Your task to perform on an android device: Is it going to rain today? Image 0: 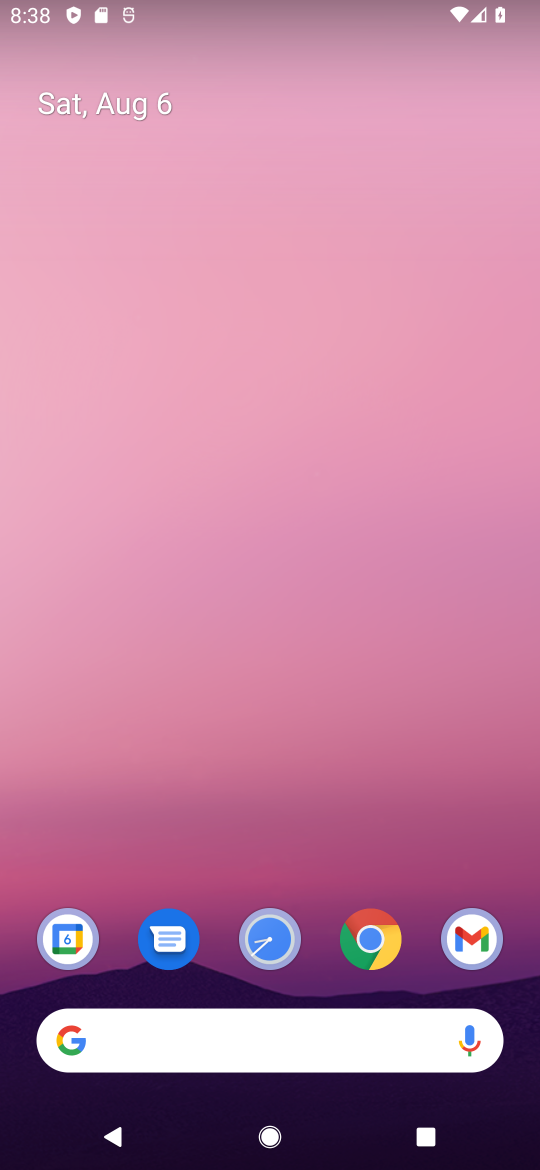
Step 0: drag from (291, 998) to (297, 347)
Your task to perform on an android device: Is it going to rain today? Image 1: 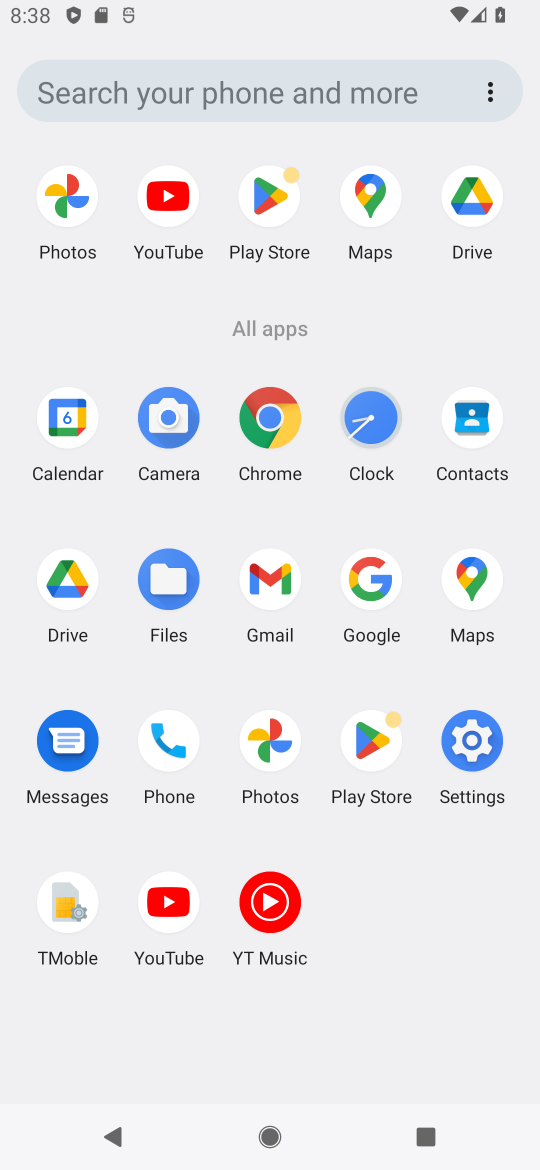
Step 1: click (354, 605)
Your task to perform on an android device: Is it going to rain today? Image 2: 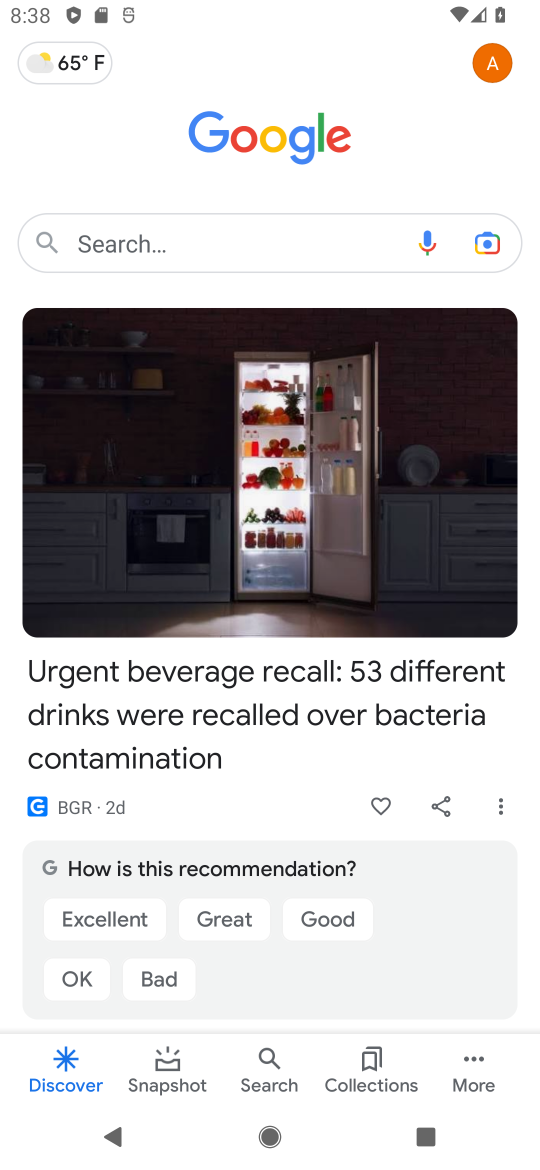
Step 2: click (118, 242)
Your task to perform on an android device: Is it going to rain today? Image 3: 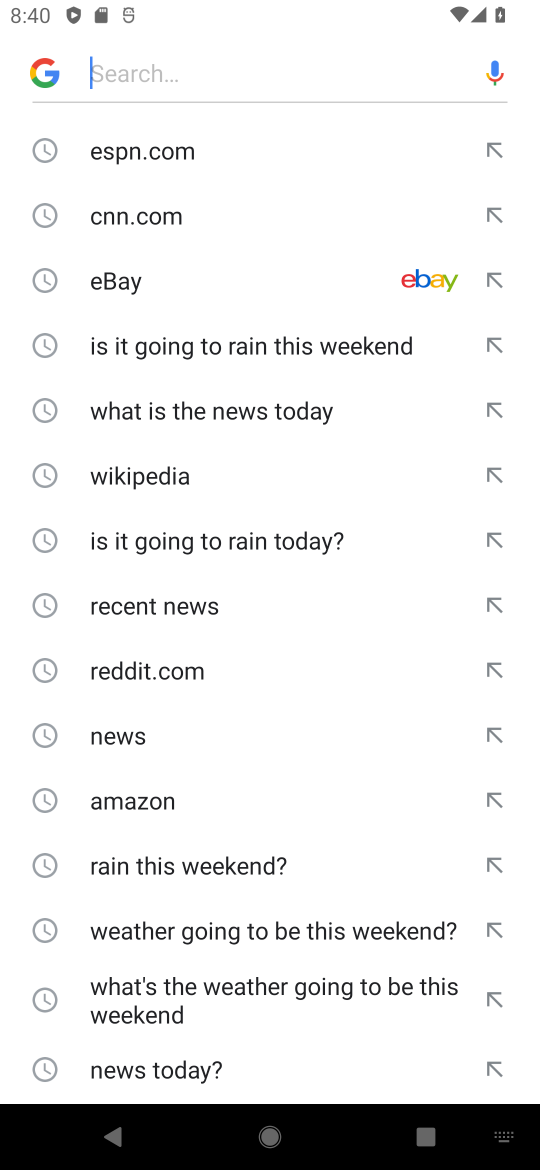
Step 3: click (194, 534)
Your task to perform on an android device: Is it going to rain today? Image 4: 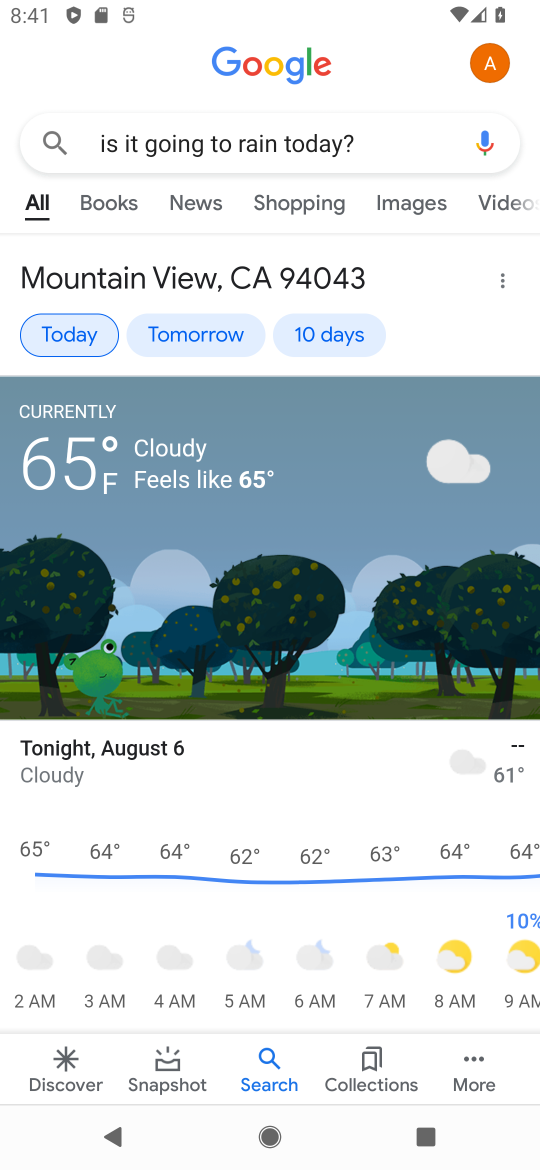
Step 4: click (70, 319)
Your task to perform on an android device: Is it going to rain today? Image 5: 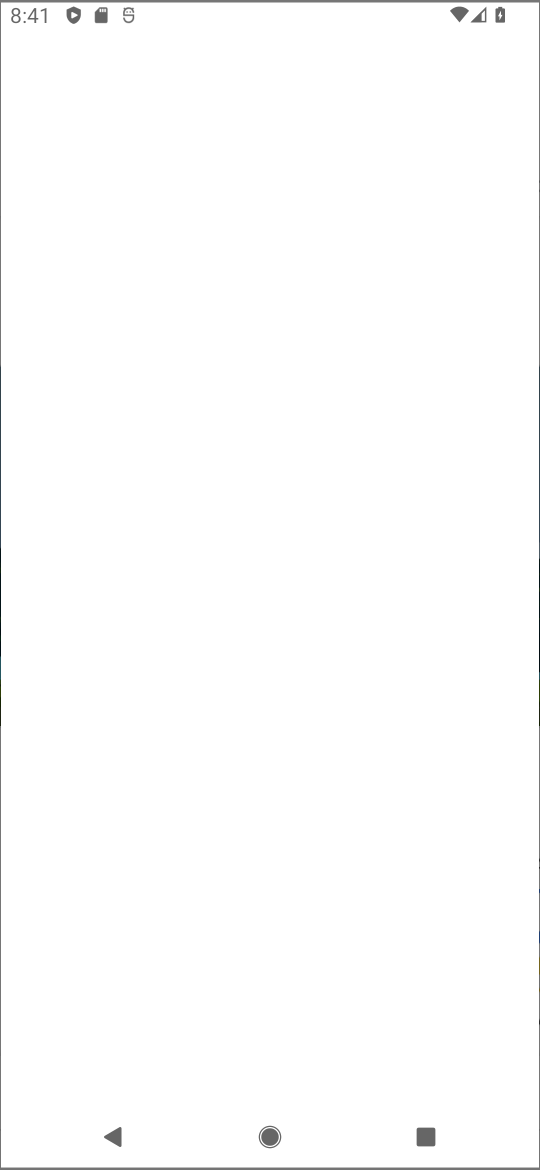
Step 5: task complete